Your task to perform on an android device: change the clock display to digital Image 0: 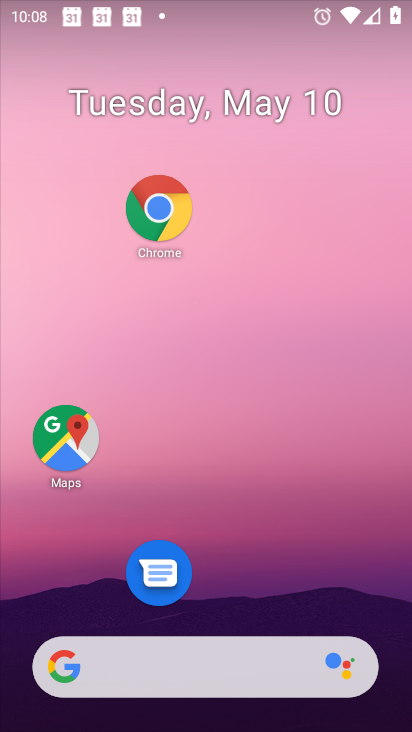
Step 0: drag from (284, 703) to (293, 299)
Your task to perform on an android device: change the clock display to digital Image 1: 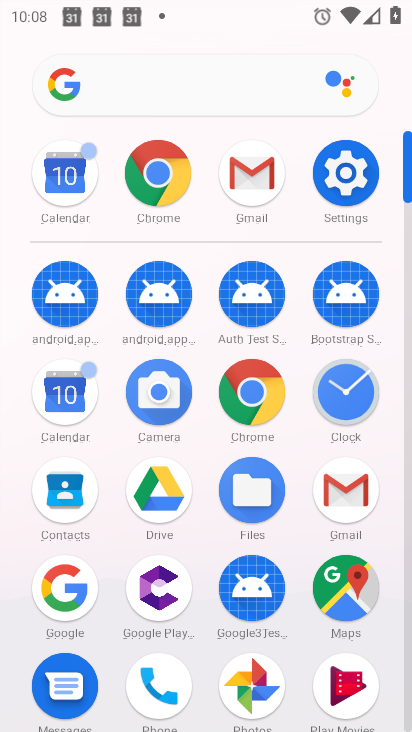
Step 1: click (325, 162)
Your task to perform on an android device: change the clock display to digital Image 2: 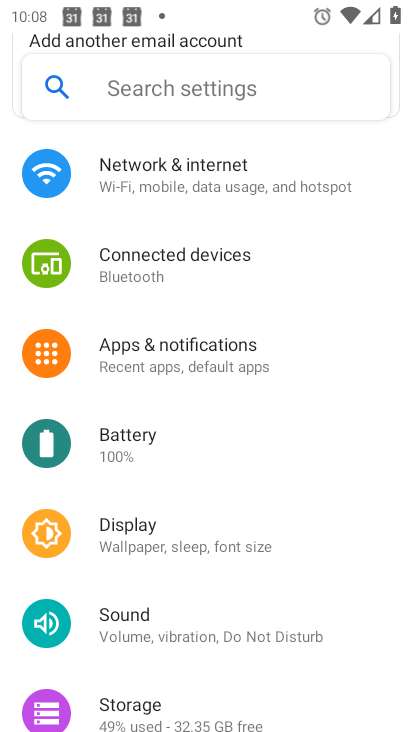
Step 2: press home button
Your task to perform on an android device: change the clock display to digital Image 3: 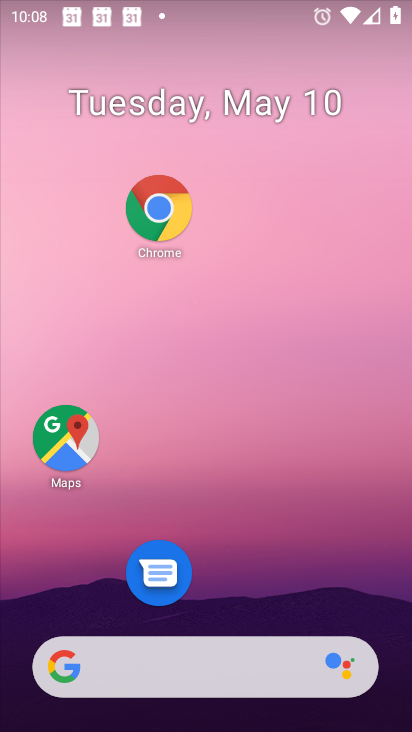
Step 3: drag from (279, 691) to (285, 246)
Your task to perform on an android device: change the clock display to digital Image 4: 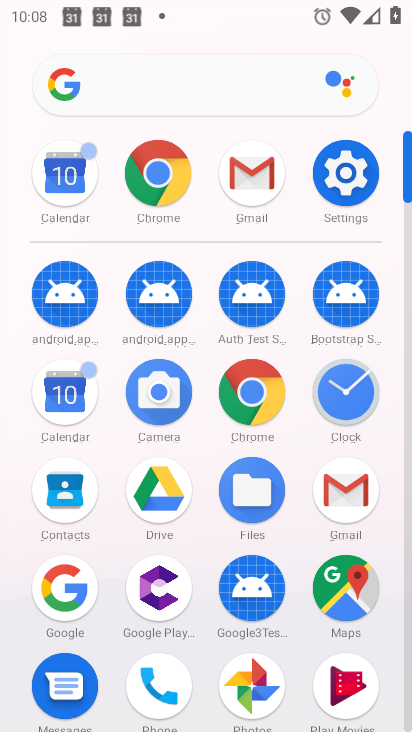
Step 4: click (360, 404)
Your task to perform on an android device: change the clock display to digital Image 5: 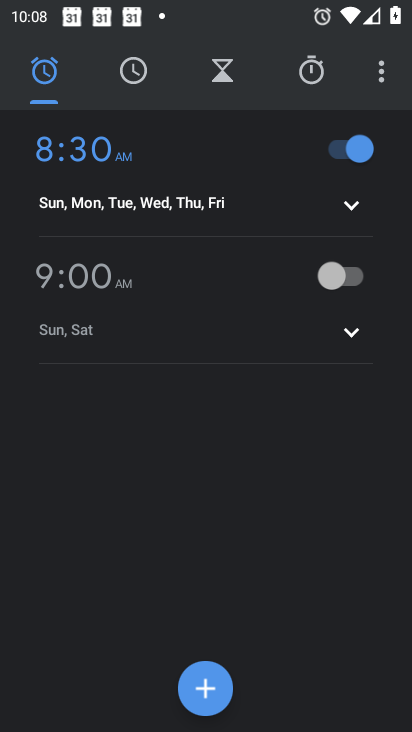
Step 5: click (374, 84)
Your task to perform on an android device: change the clock display to digital Image 6: 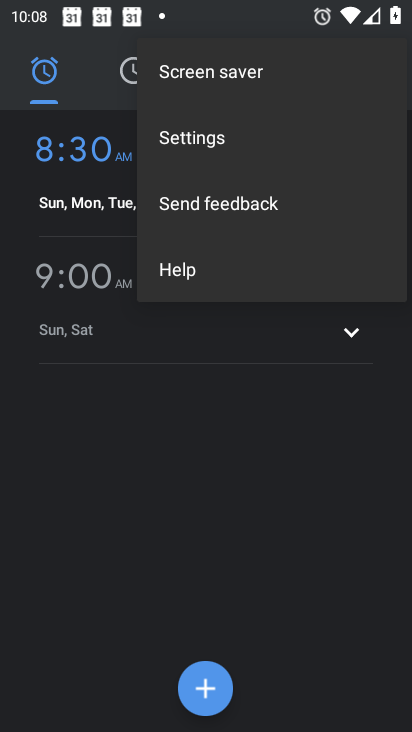
Step 6: click (229, 143)
Your task to perform on an android device: change the clock display to digital Image 7: 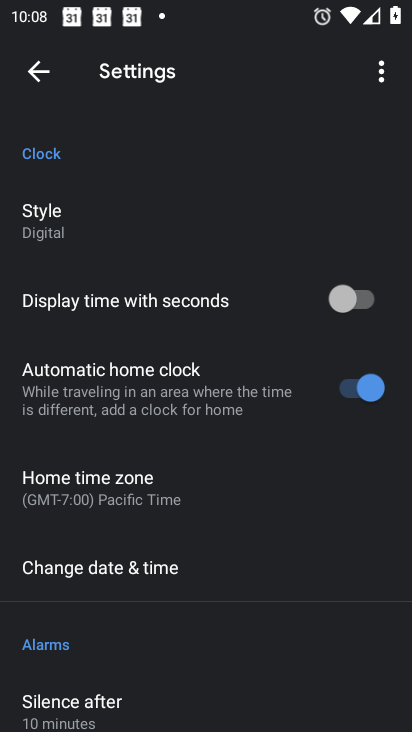
Step 7: click (147, 235)
Your task to perform on an android device: change the clock display to digital Image 8: 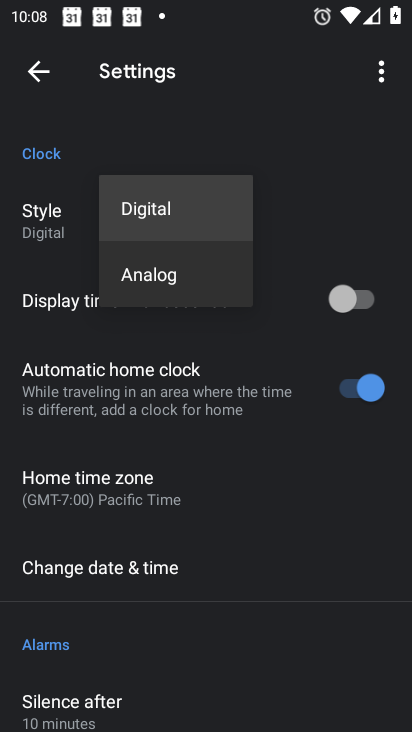
Step 8: click (157, 212)
Your task to perform on an android device: change the clock display to digital Image 9: 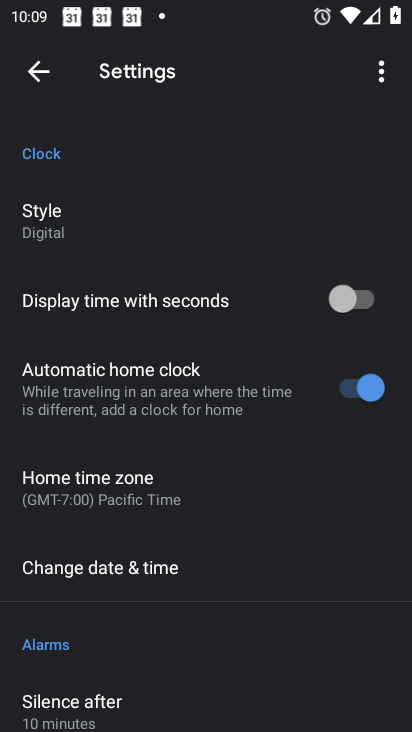
Step 9: task complete